Your task to perform on an android device: turn on javascript in the chrome app Image 0: 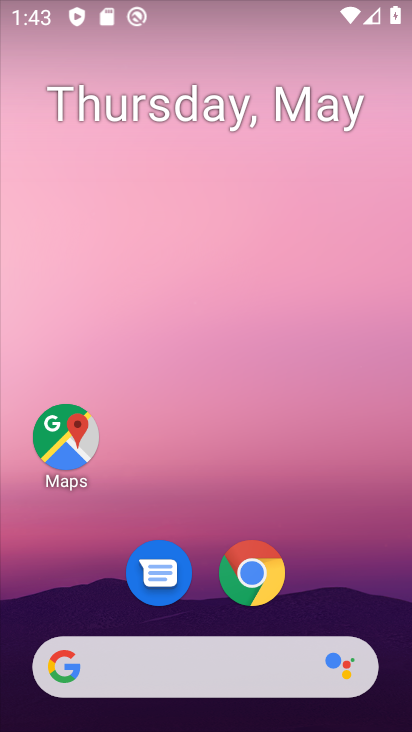
Step 0: drag from (381, 588) to (289, 319)
Your task to perform on an android device: turn on javascript in the chrome app Image 1: 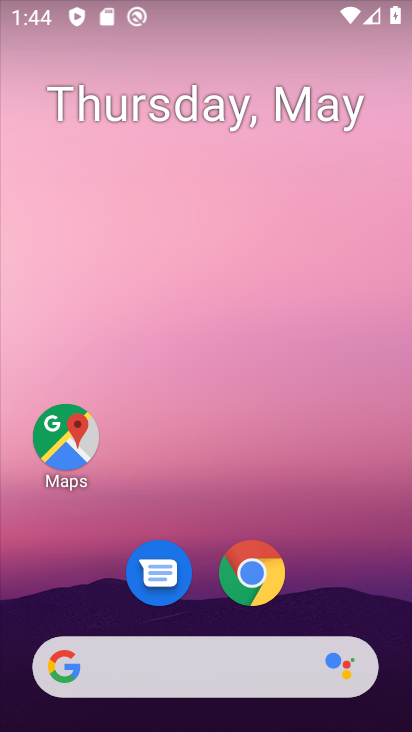
Step 1: drag from (390, 622) to (267, 252)
Your task to perform on an android device: turn on javascript in the chrome app Image 2: 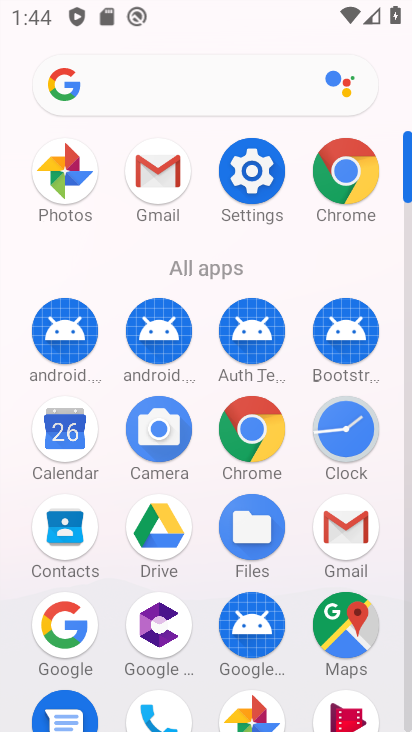
Step 2: click (337, 179)
Your task to perform on an android device: turn on javascript in the chrome app Image 3: 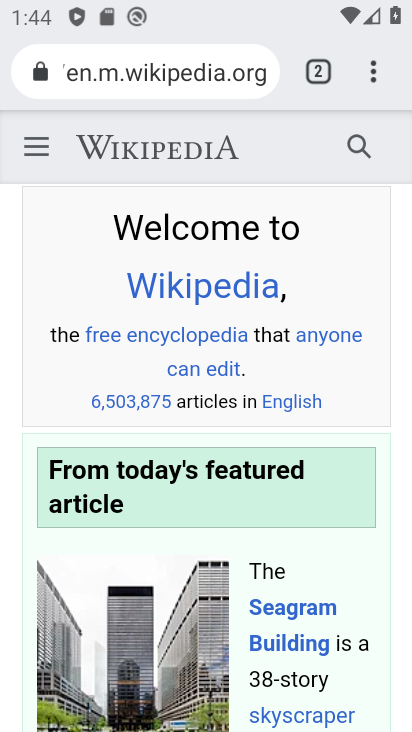
Step 3: click (354, 83)
Your task to perform on an android device: turn on javascript in the chrome app Image 4: 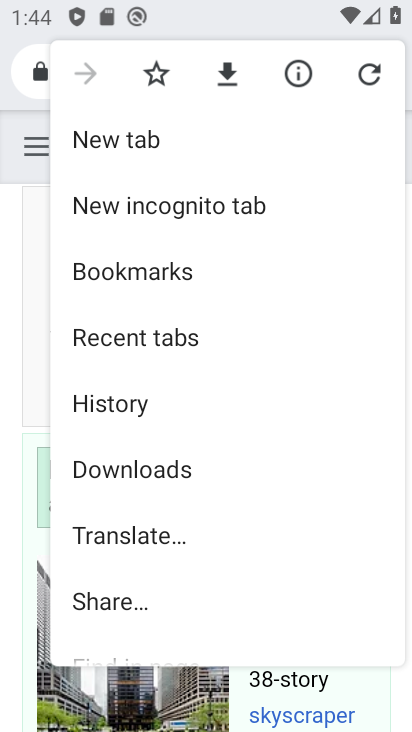
Step 4: drag from (212, 618) to (194, 250)
Your task to perform on an android device: turn on javascript in the chrome app Image 5: 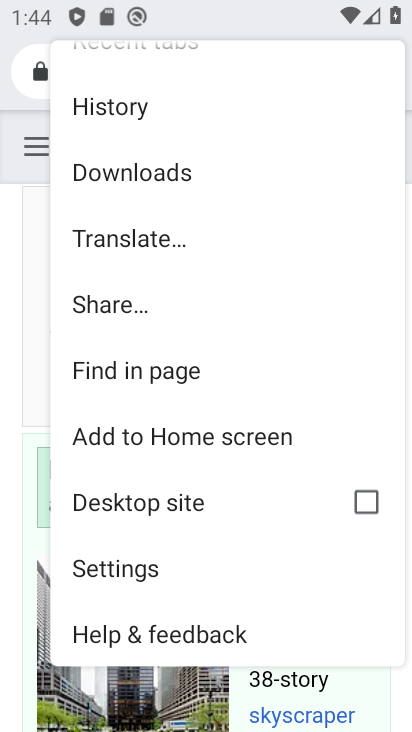
Step 5: click (174, 572)
Your task to perform on an android device: turn on javascript in the chrome app Image 6: 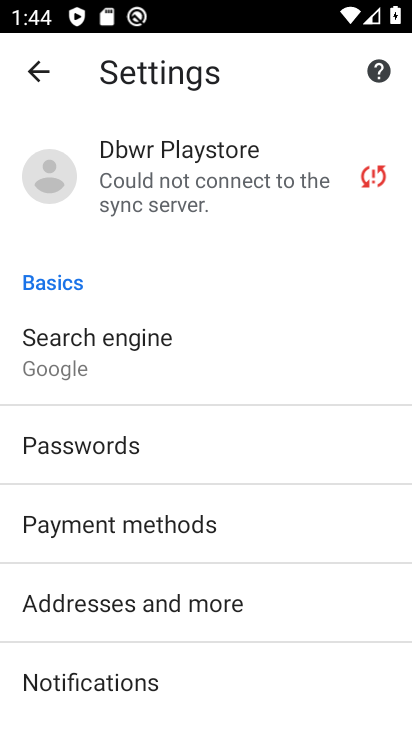
Step 6: drag from (251, 656) to (234, 300)
Your task to perform on an android device: turn on javascript in the chrome app Image 7: 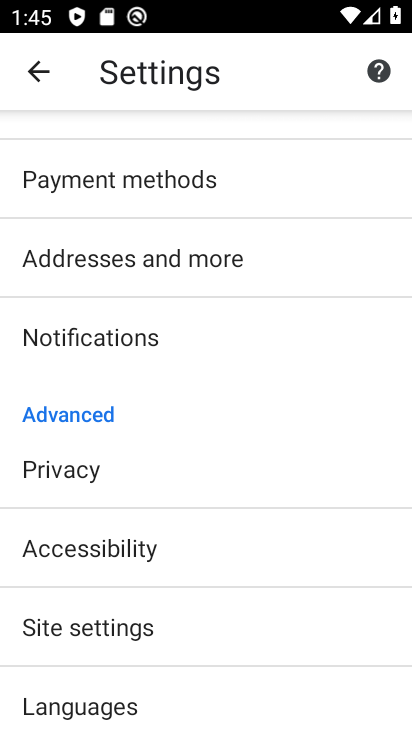
Step 7: click (208, 627)
Your task to perform on an android device: turn on javascript in the chrome app Image 8: 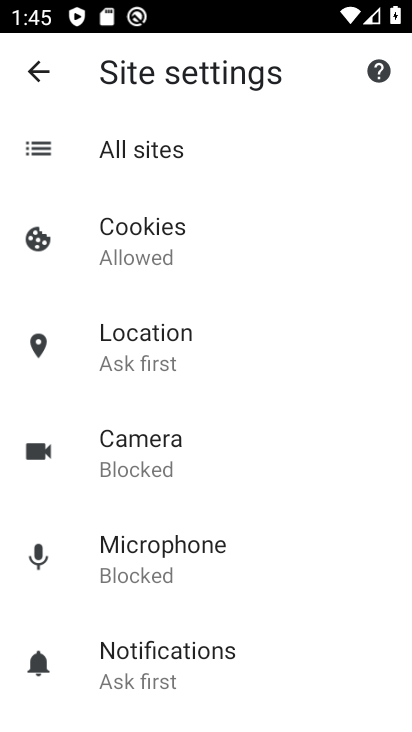
Step 8: drag from (240, 670) to (242, 350)
Your task to perform on an android device: turn on javascript in the chrome app Image 9: 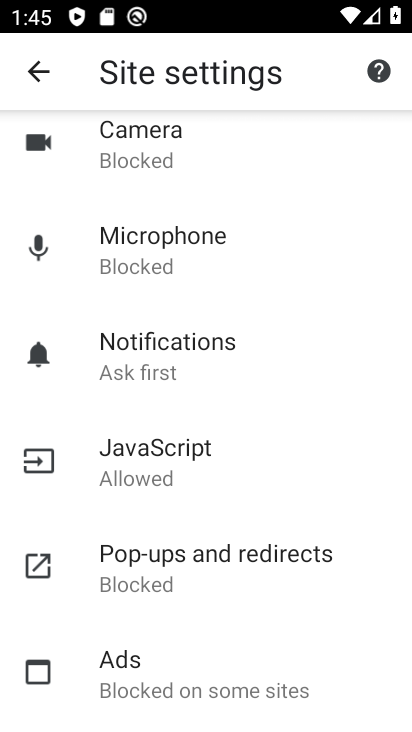
Step 9: drag from (223, 607) to (198, 283)
Your task to perform on an android device: turn on javascript in the chrome app Image 10: 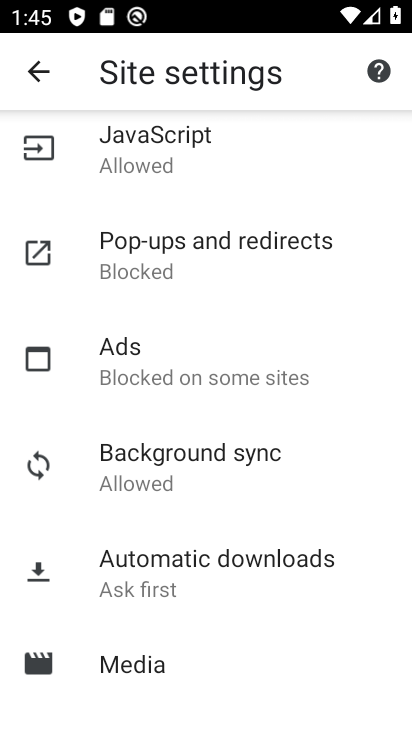
Step 10: click (236, 164)
Your task to perform on an android device: turn on javascript in the chrome app Image 11: 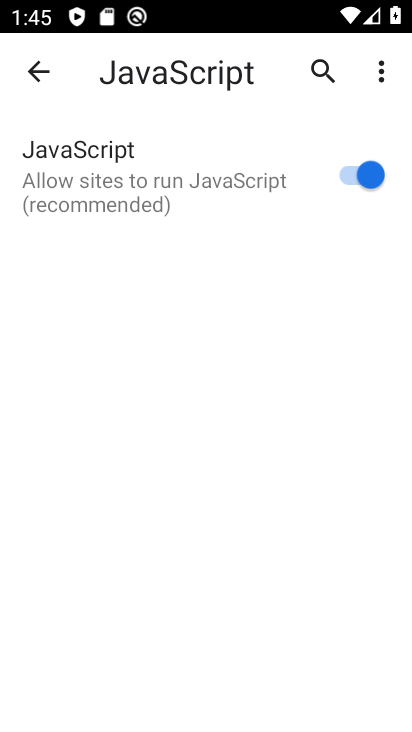
Step 11: task complete